Your task to perform on an android device: What's the weather? Image 0: 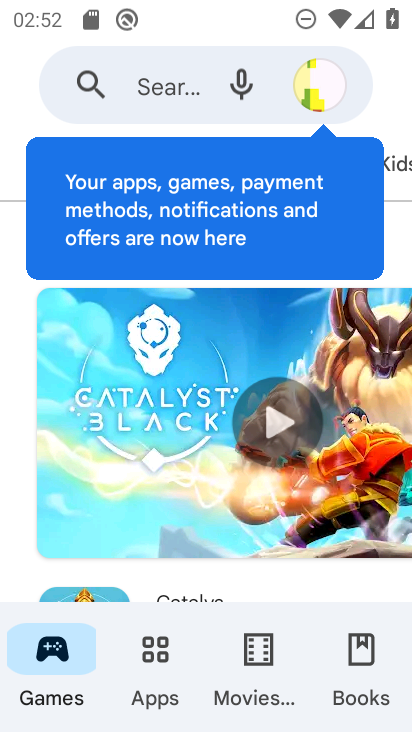
Step 0: press home button
Your task to perform on an android device: What's the weather? Image 1: 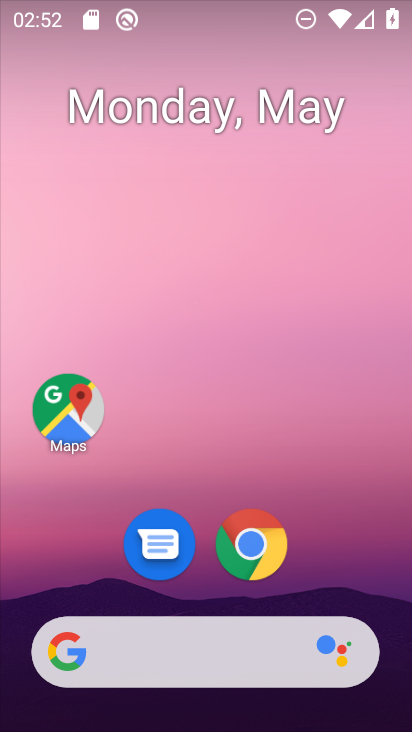
Step 1: click (241, 645)
Your task to perform on an android device: What's the weather? Image 2: 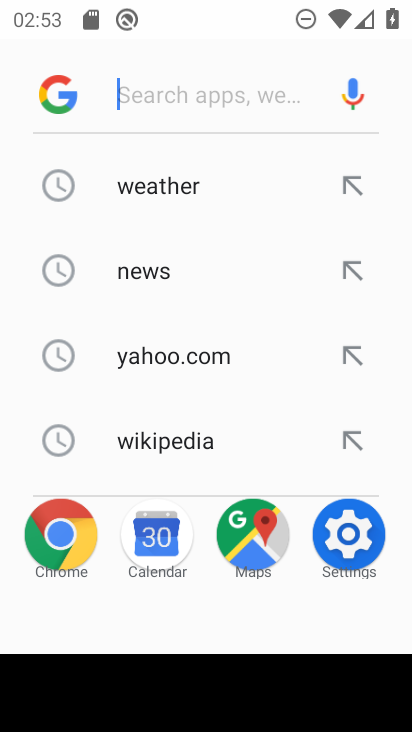
Step 2: click (163, 187)
Your task to perform on an android device: What's the weather? Image 3: 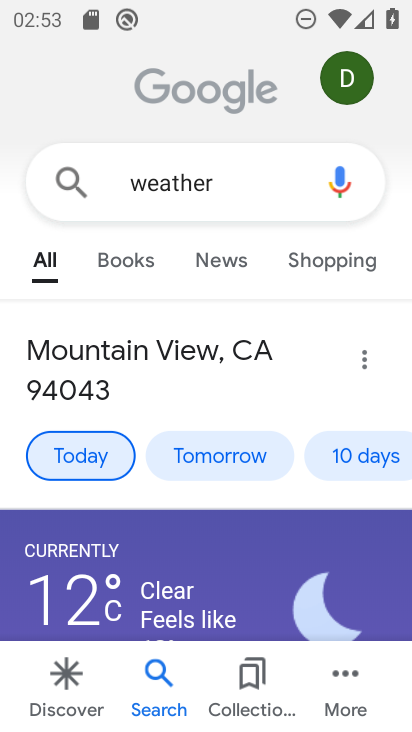
Step 3: task complete